Your task to perform on an android device: Open Yahoo.com Image 0: 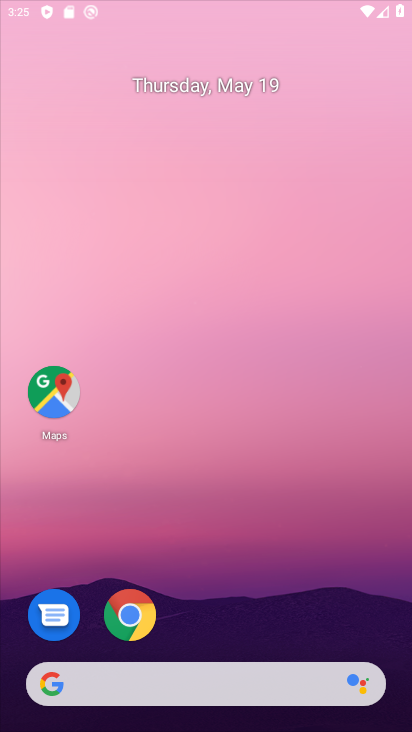
Step 0: drag from (189, 187) to (225, 21)
Your task to perform on an android device: Open Yahoo.com Image 1: 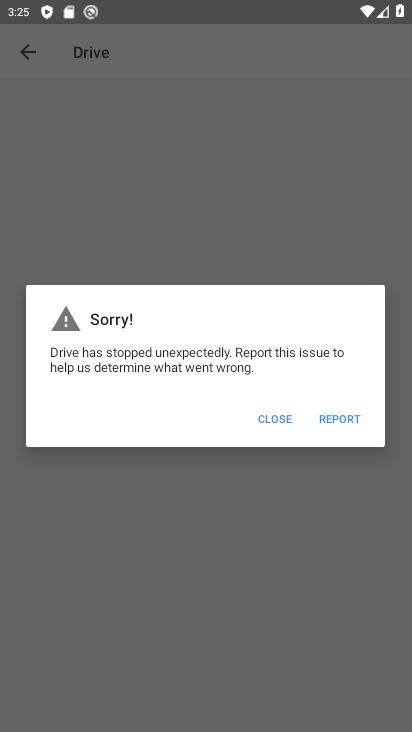
Step 1: click (273, 425)
Your task to perform on an android device: Open Yahoo.com Image 2: 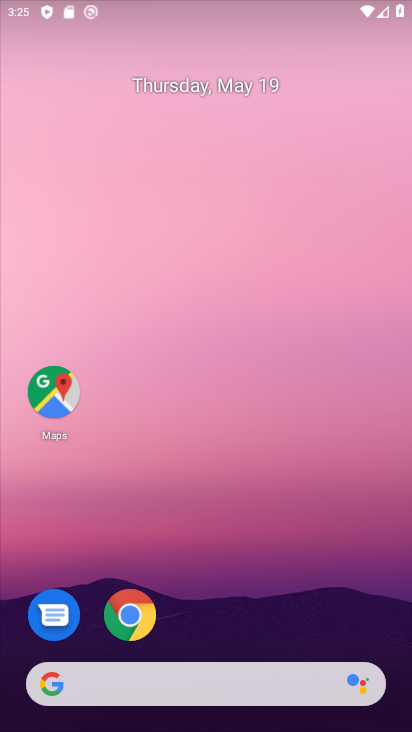
Step 2: drag from (282, 615) to (133, 39)
Your task to perform on an android device: Open Yahoo.com Image 3: 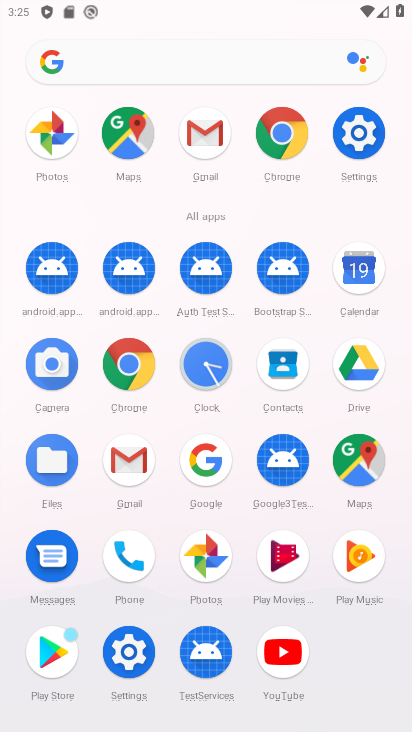
Step 3: click (283, 140)
Your task to perform on an android device: Open Yahoo.com Image 4: 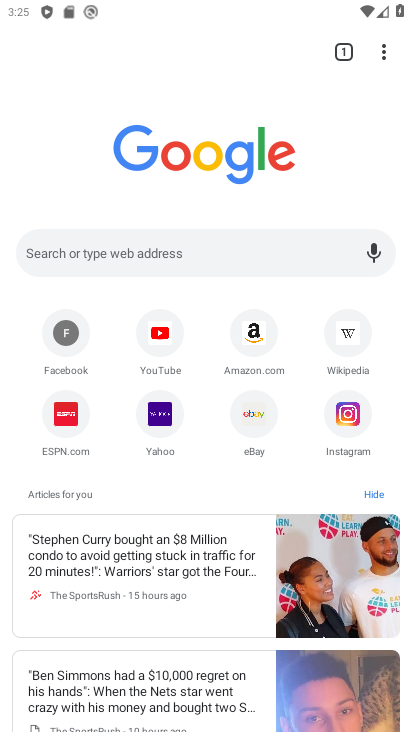
Step 4: click (163, 415)
Your task to perform on an android device: Open Yahoo.com Image 5: 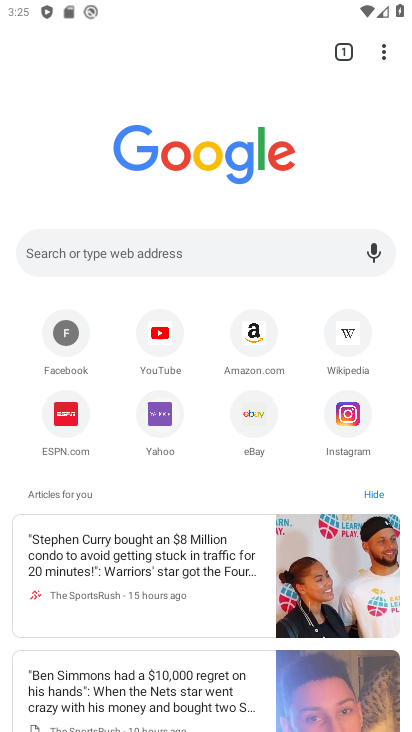
Step 5: click (162, 413)
Your task to perform on an android device: Open Yahoo.com Image 6: 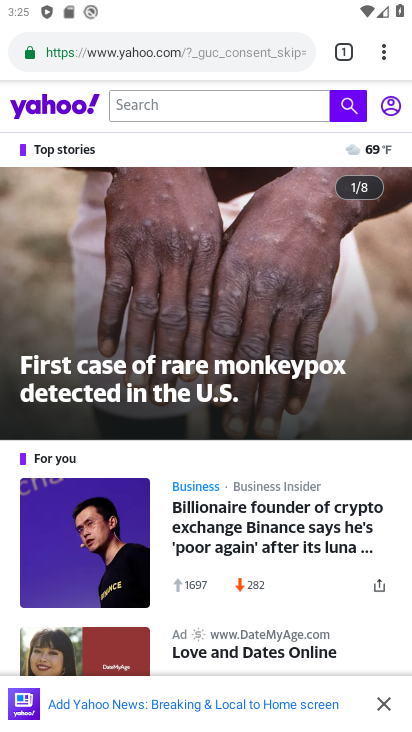
Step 6: task complete